Your task to perform on an android device: show emergency info Image 0: 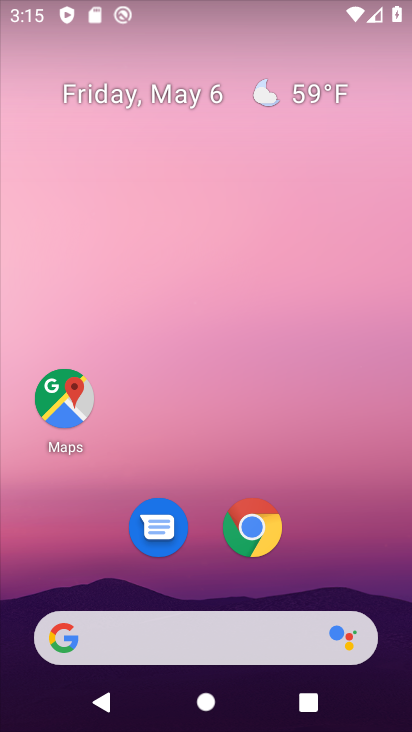
Step 0: drag from (342, 535) to (295, 67)
Your task to perform on an android device: show emergency info Image 1: 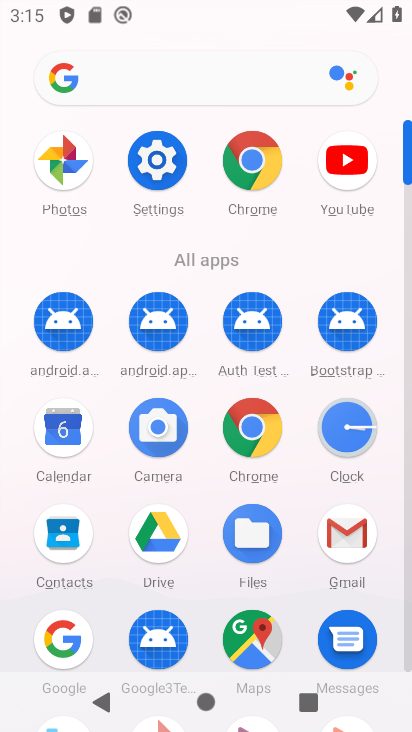
Step 1: click (162, 153)
Your task to perform on an android device: show emergency info Image 2: 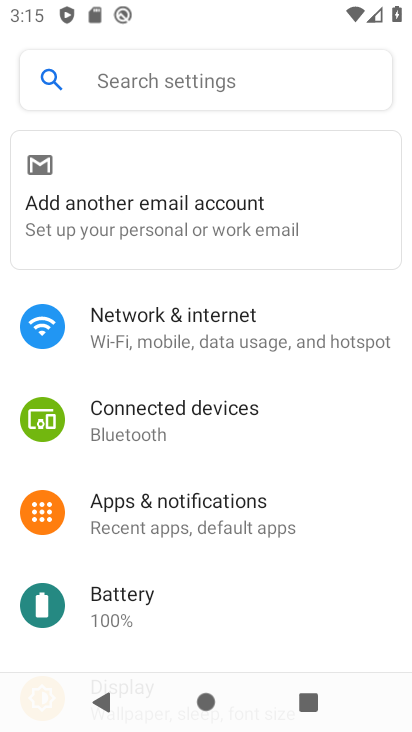
Step 2: drag from (236, 549) to (297, 32)
Your task to perform on an android device: show emergency info Image 3: 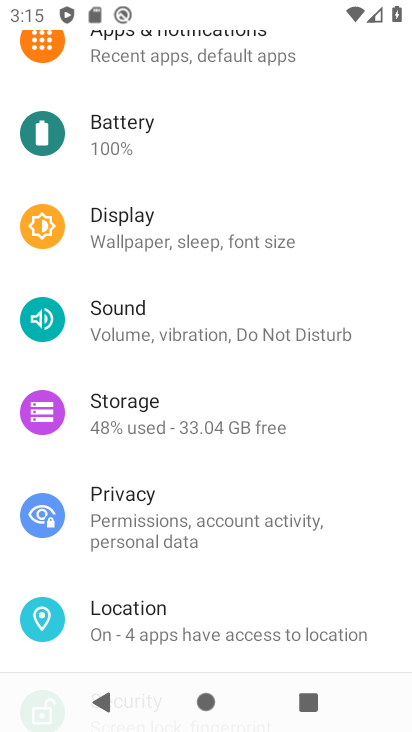
Step 3: drag from (242, 552) to (316, 62)
Your task to perform on an android device: show emergency info Image 4: 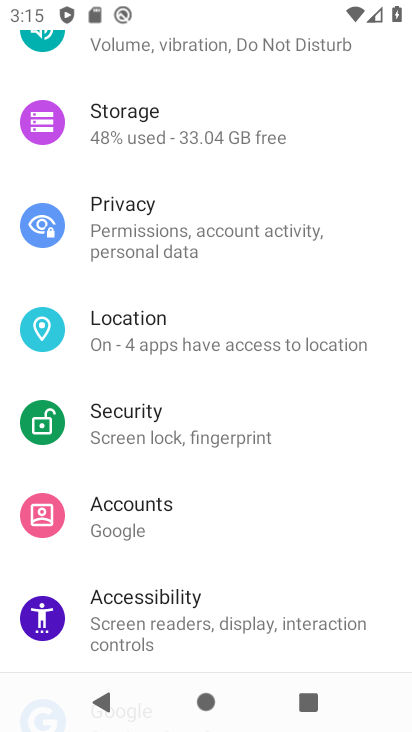
Step 4: drag from (260, 410) to (293, 49)
Your task to perform on an android device: show emergency info Image 5: 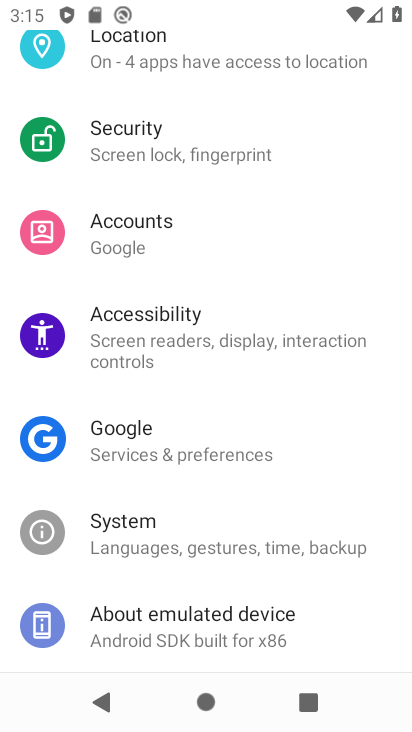
Step 5: drag from (207, 583) to (274, 184)
Your task to perform on an android device: show emergency info Image 6: 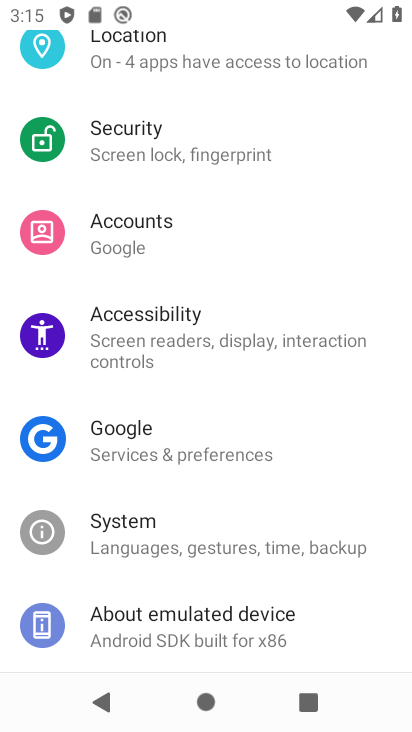
Step 6: click (169, 627)
Your task to perform on an android device: show emergency info Image 7: 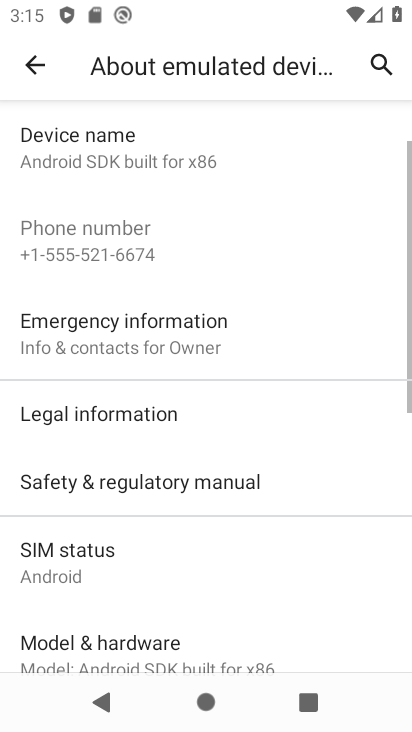
Step 7: task complete